Your task to perform on an android device: choose inbox layout in the gmail app Image 0: 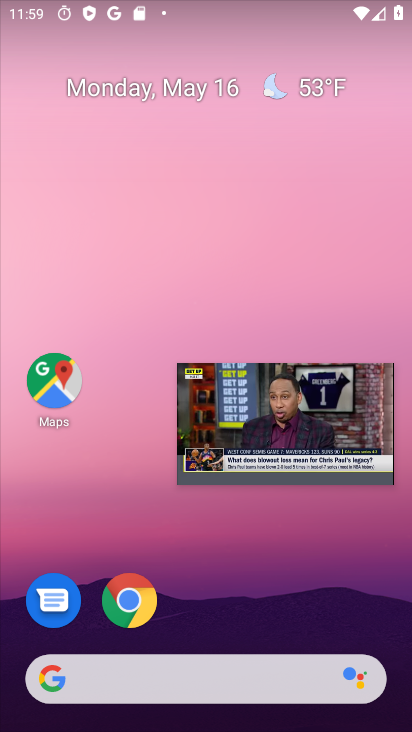
Step 0: drag from (330, 415) to (213, 728)
Your task to perform on an android device: choose inbox layout in the gmail app Image 1: 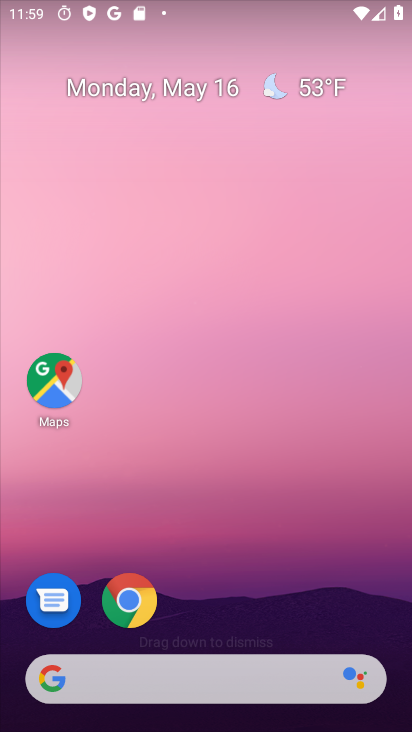
Step 1: drag from (292, 614) to (264, 89)
Your task to perform on an android device: choose inbox layout in the gmail app Image 2: 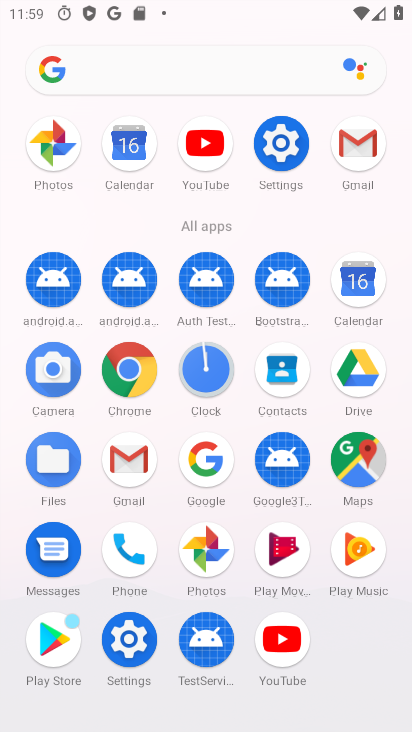
Step 2: click (347, 133)
Your task to perform on an android device: choose inbox layout in the gmail app Image 3: 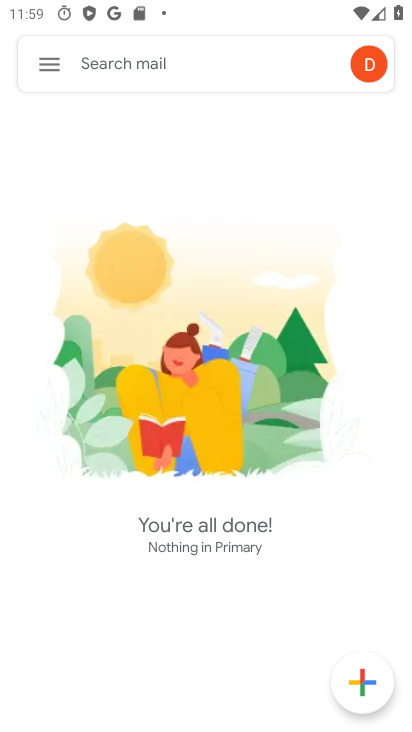
Step 3: click (61, 66)
Your task to perform on an android device: choose inbox layout in the gmail app Image 4: 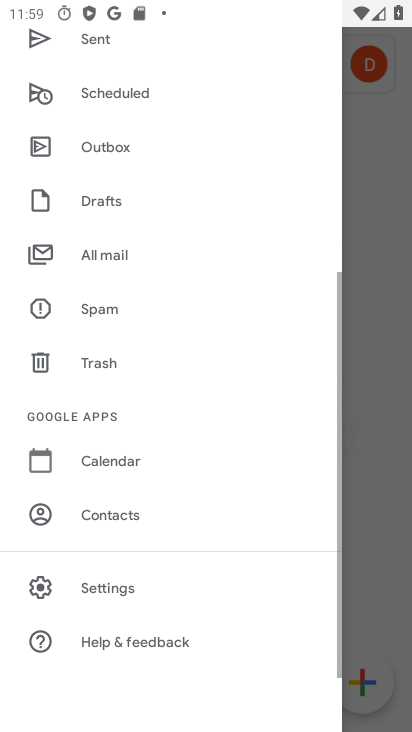
Step 4: click (191, 583)
Your task to perform on an android device: choose inbox layout in the gmail app Image 5: 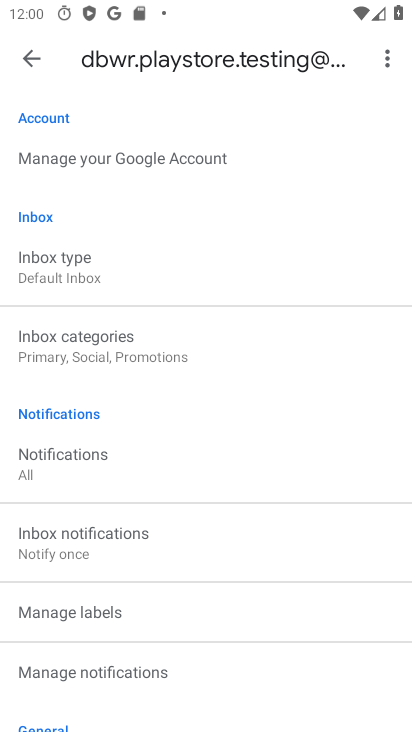
Step 5: click (52, 269)
Your task to perform on an android device: choose inbox layout in the gmail app Image 6: 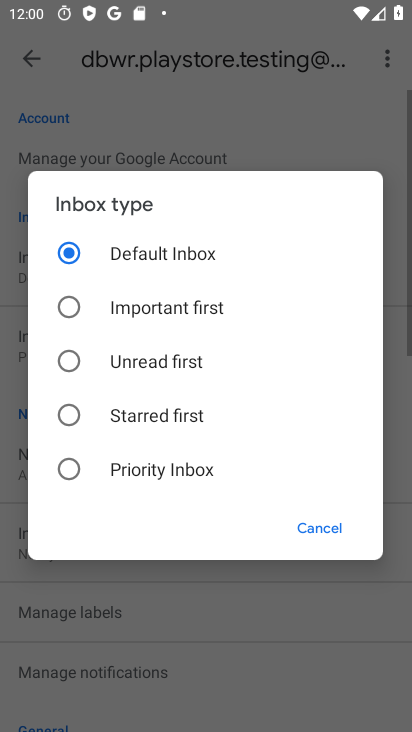
Step 6: click (109, 313)
Your task to perform on an android device: choose inbox layout in the gmail app Image 7: 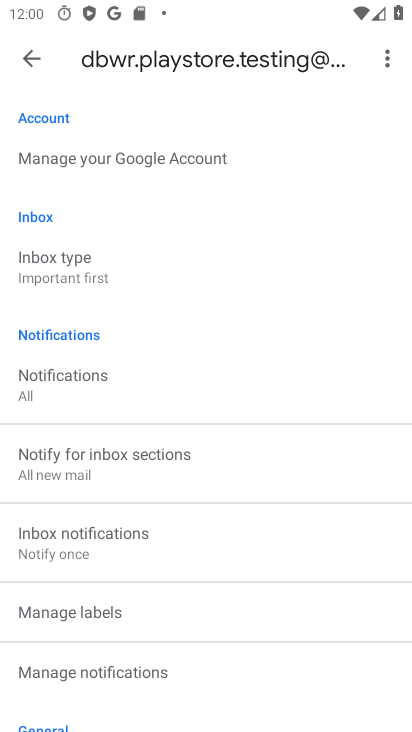
Step 7: task complete